Your task to perform on an android device: show emergency info Image 0: 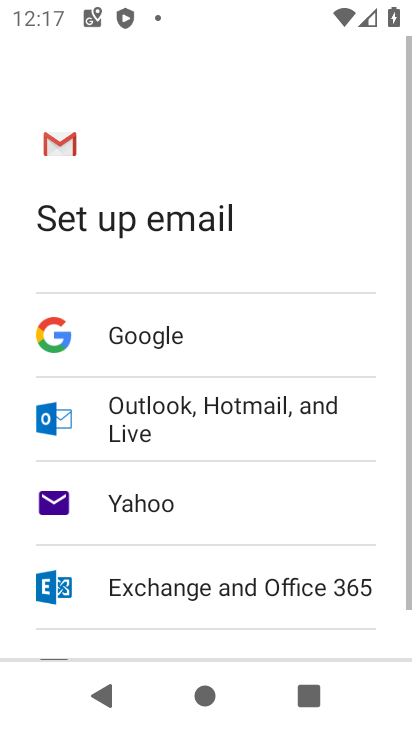
Step 0: press home button
Your task to perform on an android device: show emergency info Image 1: 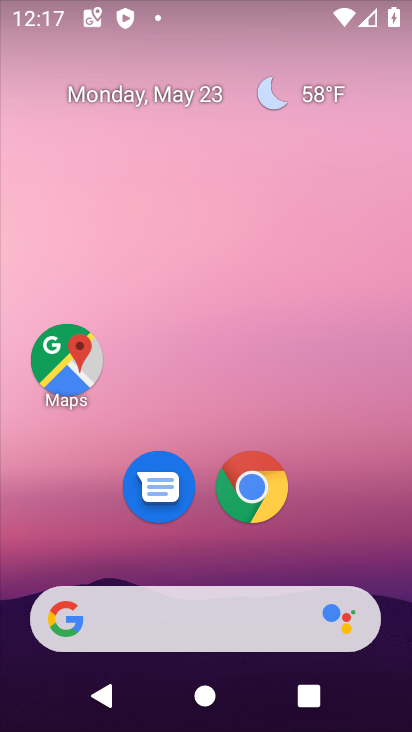
Step 1: drag from (396, 603) to (351, 55)
Your task to perform on an android device: show emergency info Image 2: 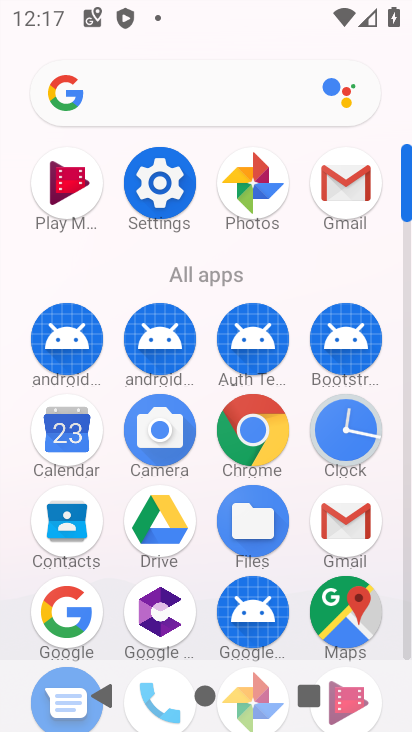
Step 2: click (405, 645)
Your task to perform on an android device: show emergency info Image 3: 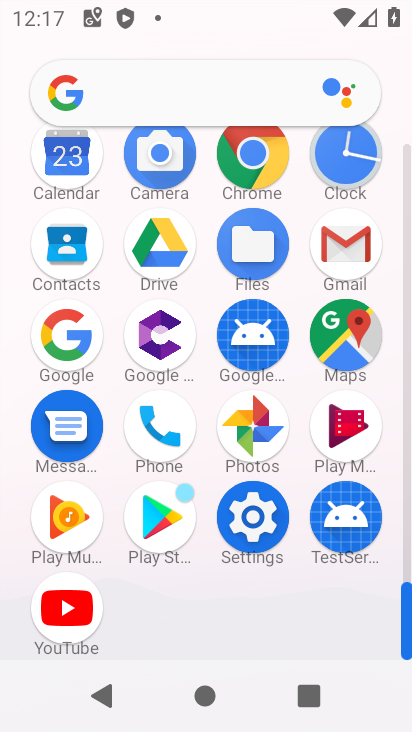
Step 3: click (252, 516)
Your task to perform on an android device: show emergency info Image 4: 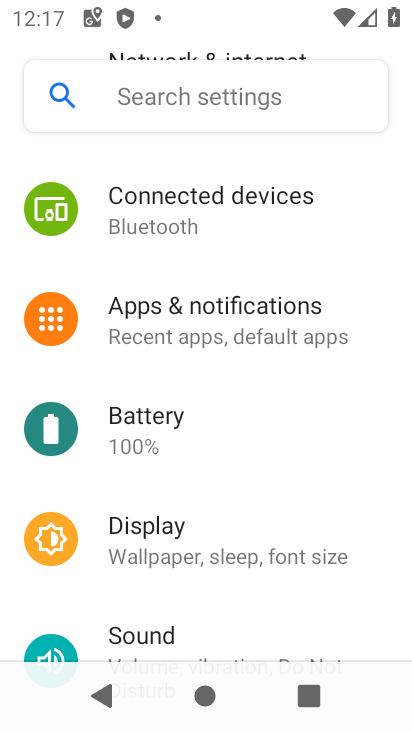
Step 4: drag from (358, 553) to (322, 154)
Your task to perform on an android device: show emergency info Image 5: 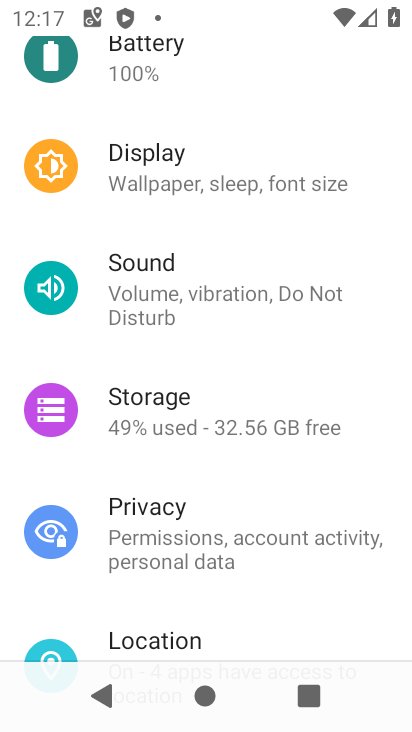
Step 5: drag from (365, 563) to (342, 170)
Your task to perform on an android device: show emergency info Image 6: 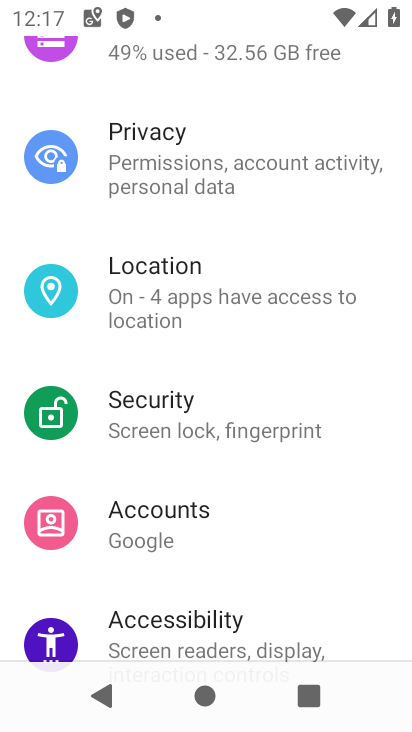
Step 6: drag from (307, 549) to (362, 199)
Your task to perform on an android device: show emergency info Image 7: 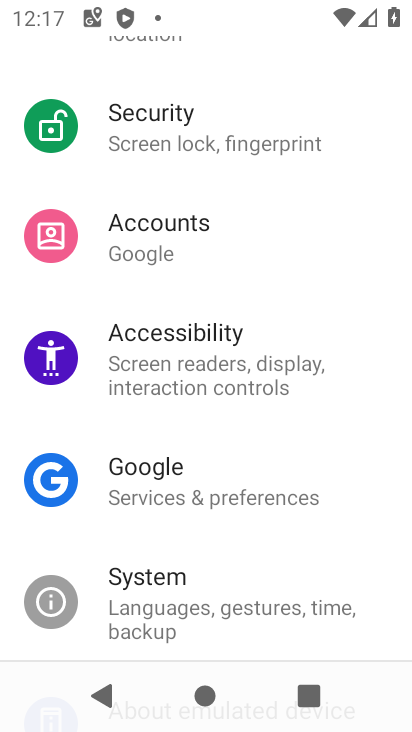
Step 7: drag from (310, 564) to (332, 194)
Your task to perform on an android device: show emergency info Image 8: 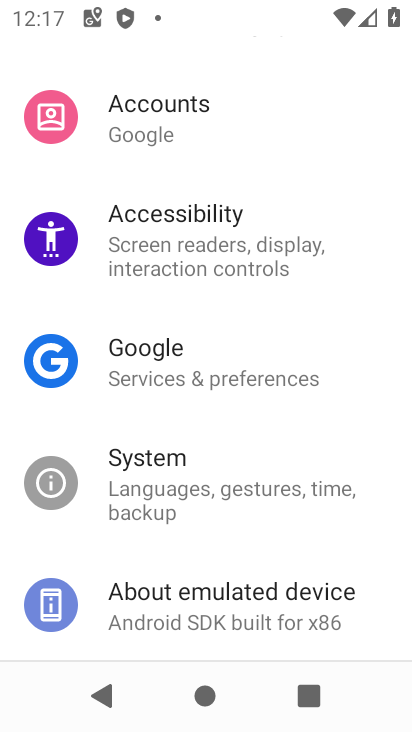
Step 8: click (132, 598)
Your task to perform on an android device: show emergency info Image 9: 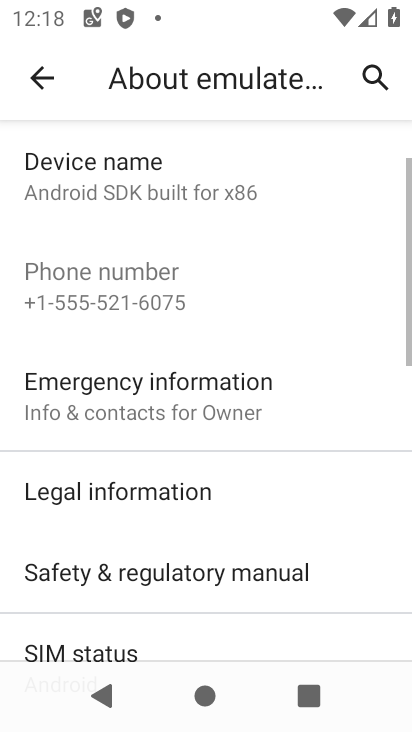
Step 9: click (92, 391)
Your task to perform on an android device: show emergency info Image 10: 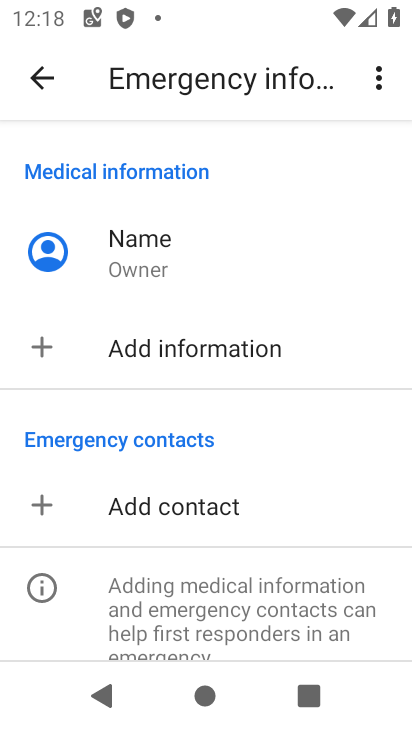
Step 10: task complete